Your task to perform on an android device: allow cookies in the chrome app Image 0: 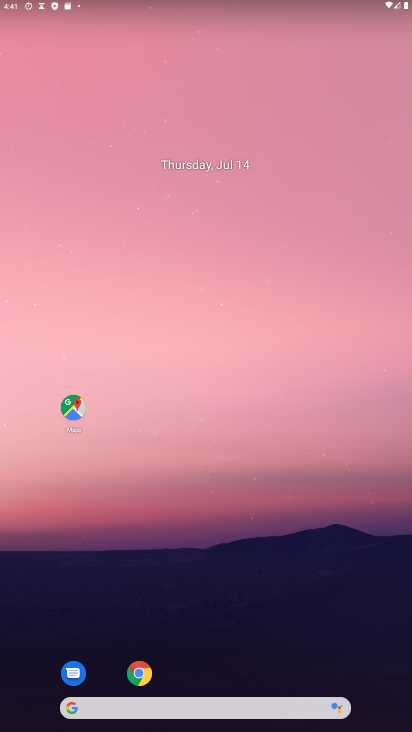
Step 0: drag from (212, 564) to (187, 220)
Your task to perform on an android device: allow cookies in the chrome app Image 1: 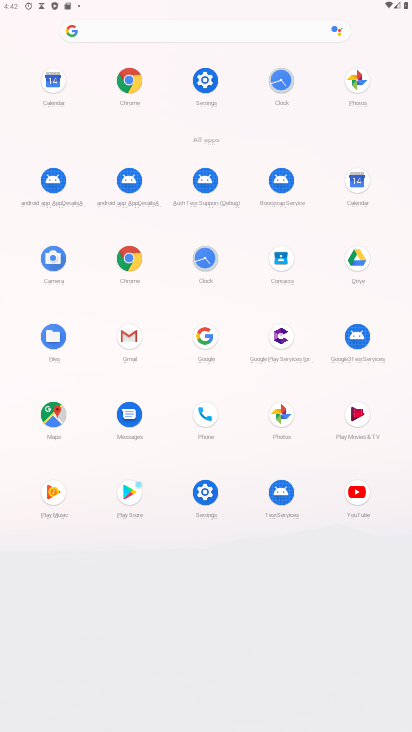
Step 1: click (123, 260)
Your task to perform on an android device: allow cookies in the chrome app Image 2: 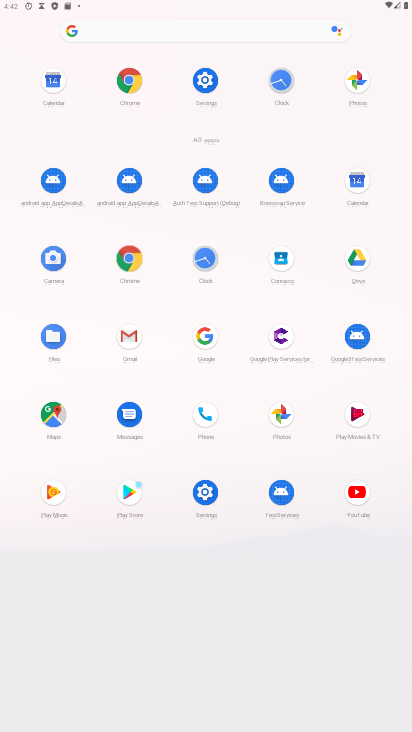
Step 2: click (123, 260)
Your task to perform on an android device: allow cookies in the chrome app Image 3: 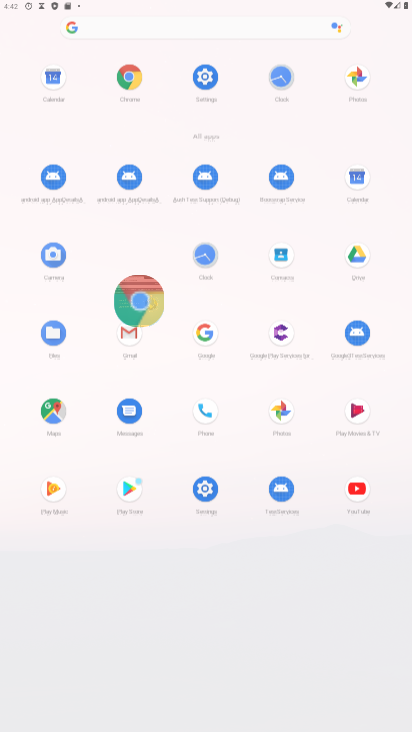
Step 3: click (123, 260)
Your task to perform on an android device: allow cookies in the chrome app Image 4: 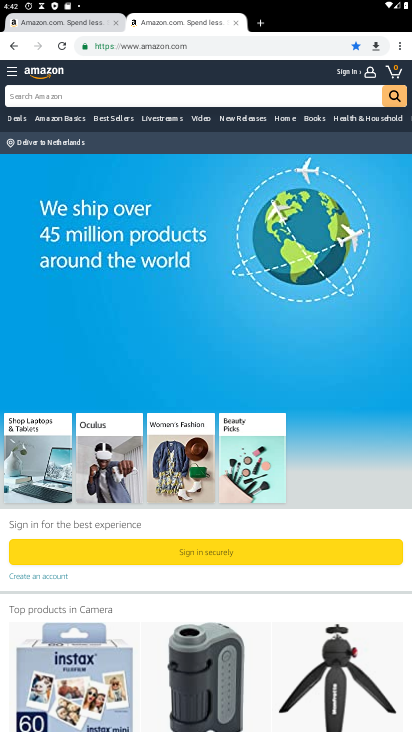
Step 4: drag from (395, 45) to (301, 310)
Your task to perform on an android device: allow cookies in the chrome app Image 5: 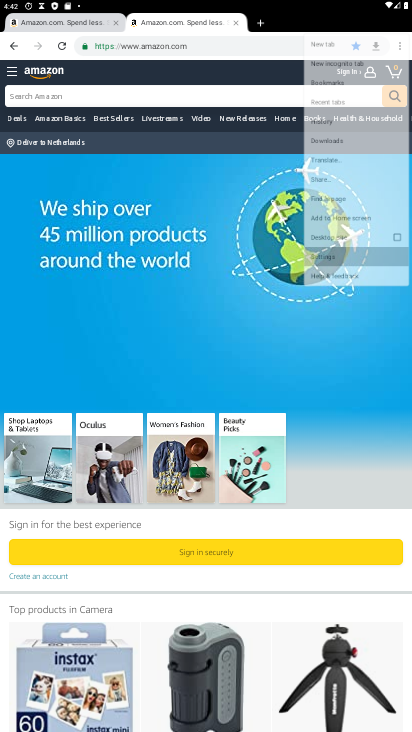
Step 5: click (301, 310)
Your task to perform on an android device: allow cookies in the chrome app Image 6: 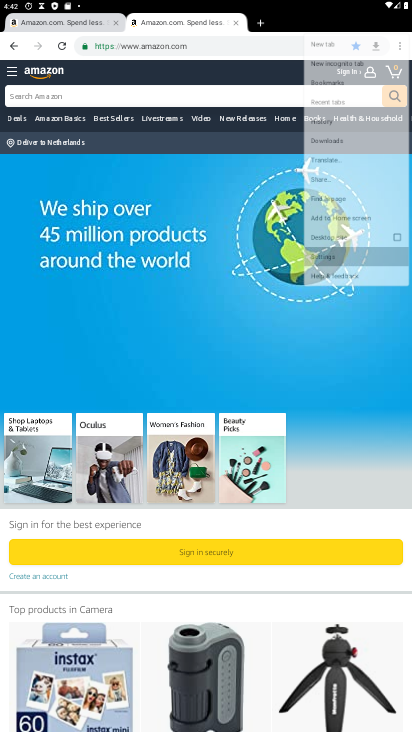
Step 6: click (301, 310)
Your task to perform on an android device: allow cookies in the chrome app Image 7: 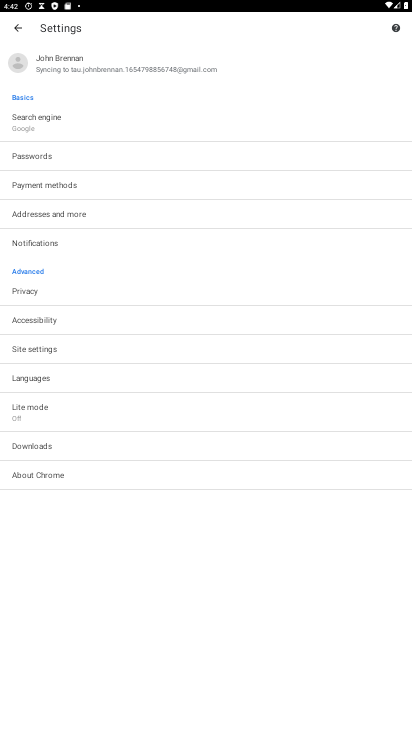
Step 7: click (37, 344)
Your task to perform on an android device: allow cookies in the chrome app Image 8: 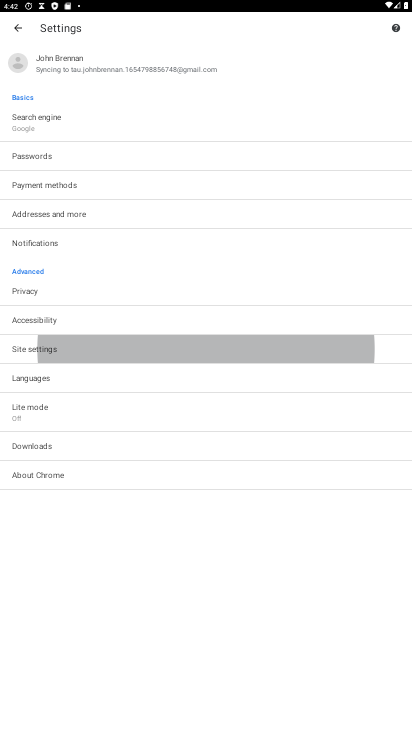
Step 8: click (37, 344)
Your task to perform on an android device: allow cookies in the chrome app Image 9: 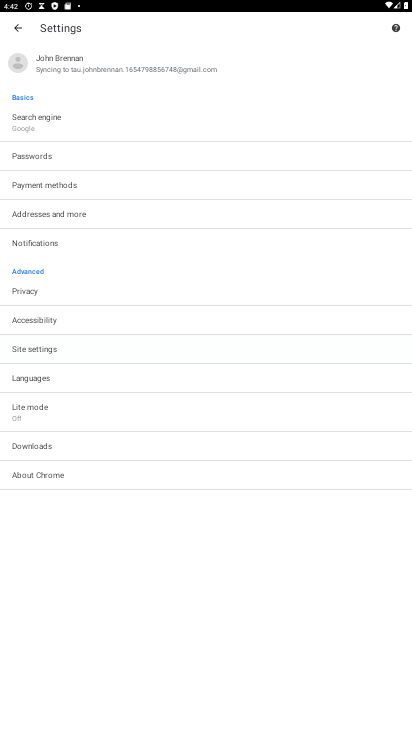
Step 9: click (37, 344)
Your task to perform on an android device: allow cookies in the chrome app Image 10: 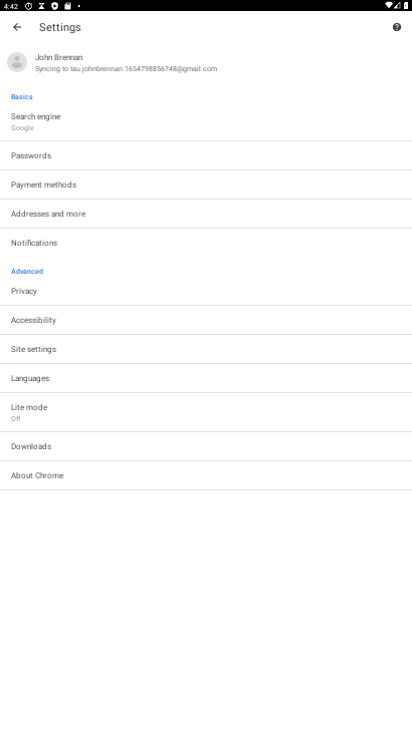
Step 10: click (37, 344)
Your task to perform on an android device: allow cookies in the chrome app Image 11: 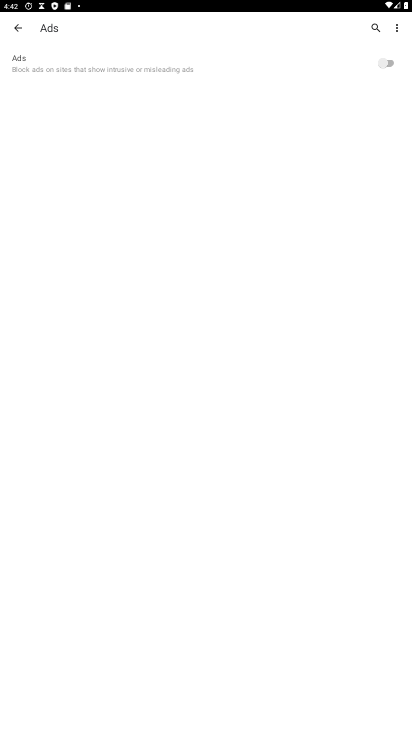
Step 11: click (13, 34)
Your task to perform on an android device: allow cookies in the chrome app Image 12: 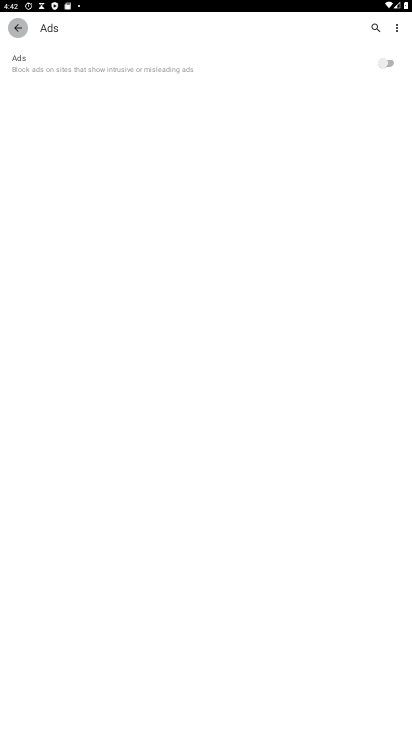
Step 12: click (14, 32)
Your task to perform on an android device: allow cookies in the chrome app Image 13: 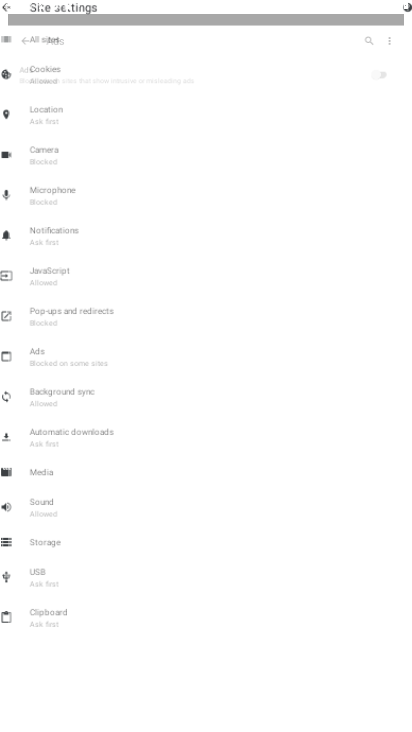
Step 13: click (16, 33)
Your task to perform on an android device: allow cookies in the chrome app Image 14: 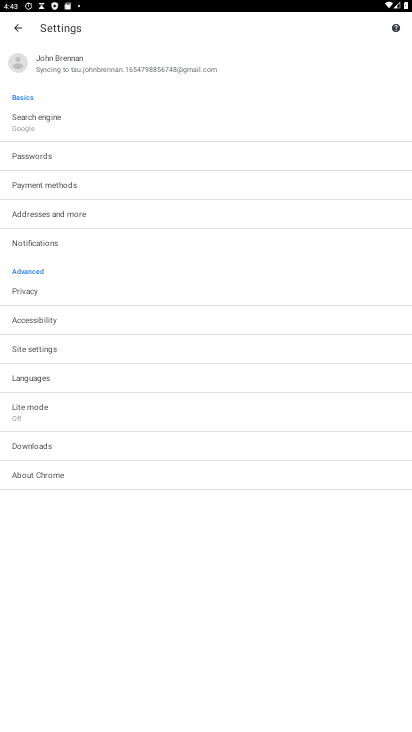
Step 14: click (19, 346)
Your task to perform on an android device: allow cookies in the chrome app Image 15: 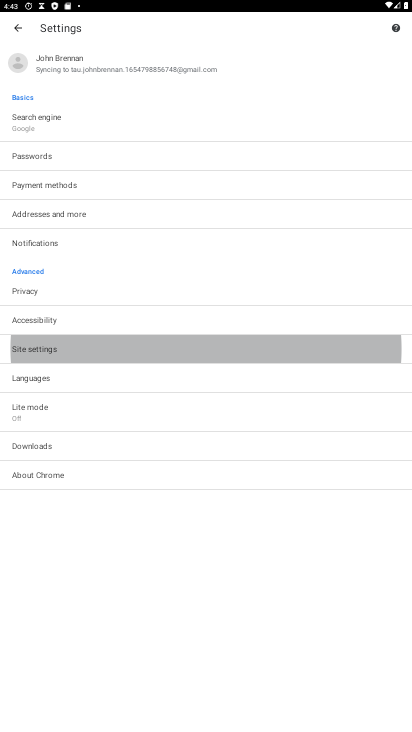
Step 15: click (21, 346)
Your task to perform on an android device: allow cookies in the chrome app Image 16: 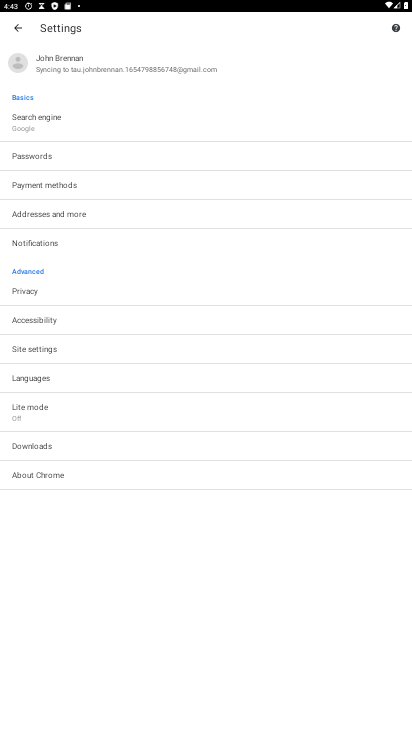
Step 16: click (22, 347)
Your task to perform on an android device: allow cookies in the chrome app Image 17: 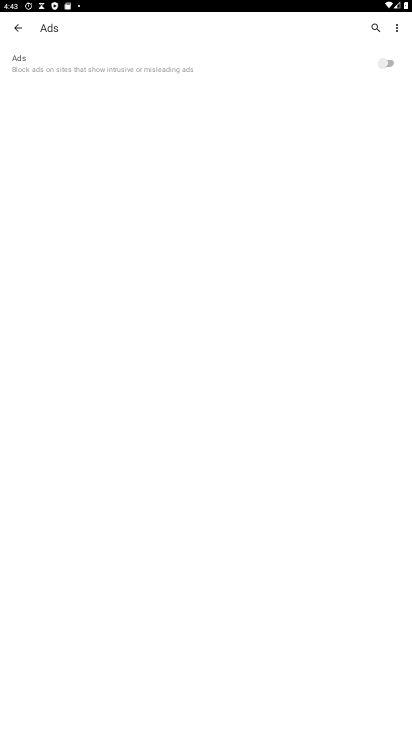
Step 17: click (31, 31)
Your task to perform on an android device: allow cookies in the chrome app Image 18: 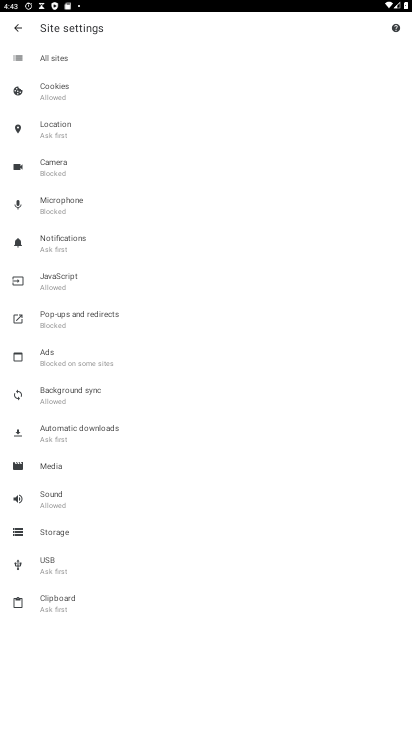
Step 18: task complete